Your task to perform on an android device: turn off improve location accuracy Image 0: 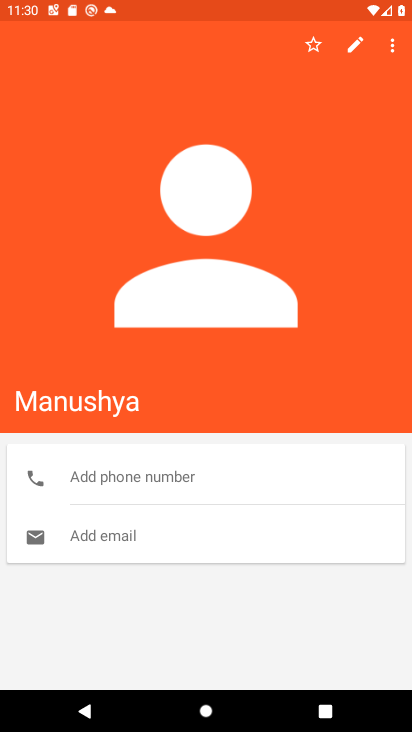
Step 0: press home button
Your task to perform on an android device: turn off improve location accuracy Image 1: 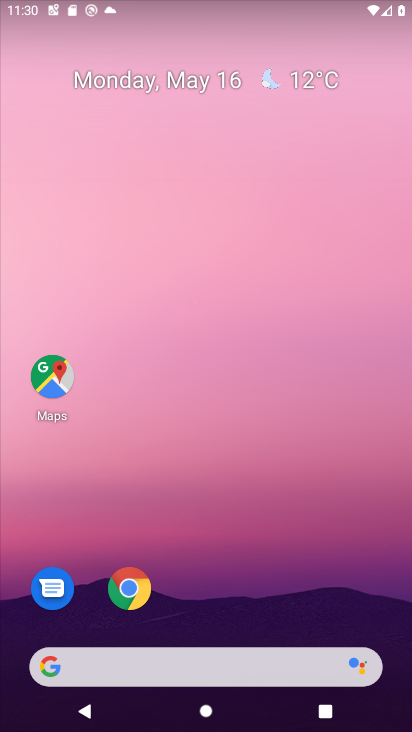
Step 1: drag from (206, 624) to (234, 1)
Your task to perform on an android device: turn off improve location accuracy Image 2: 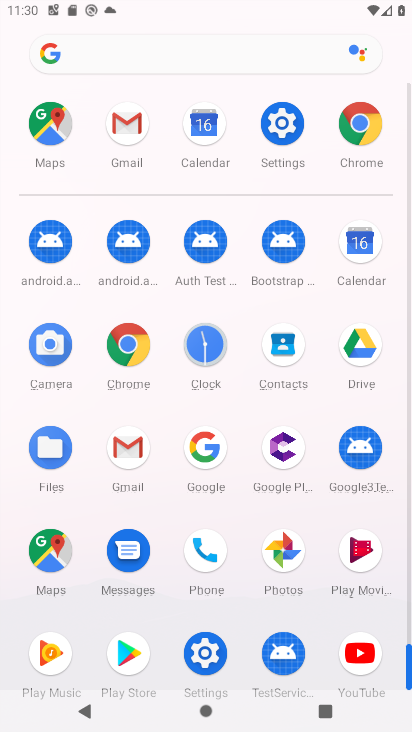
Step 2: click (280, 118)
Your task to perform on an android device: turn off improve location accuracy Image 3: 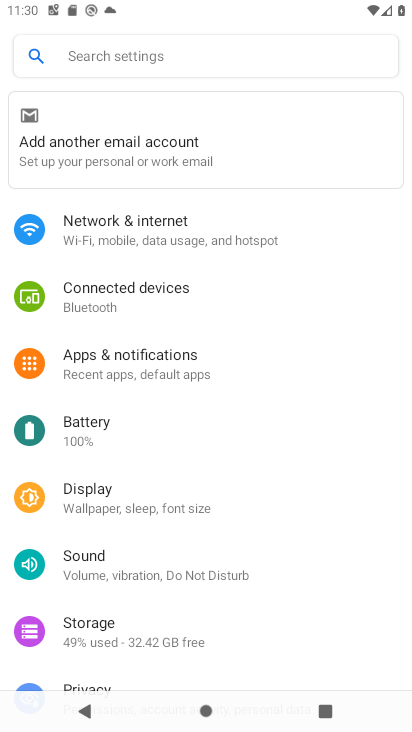
Step 3: drag from (157, 609) to (168, 113)
Your task to perform on an android device: turn off improve location accuracy Image 4: 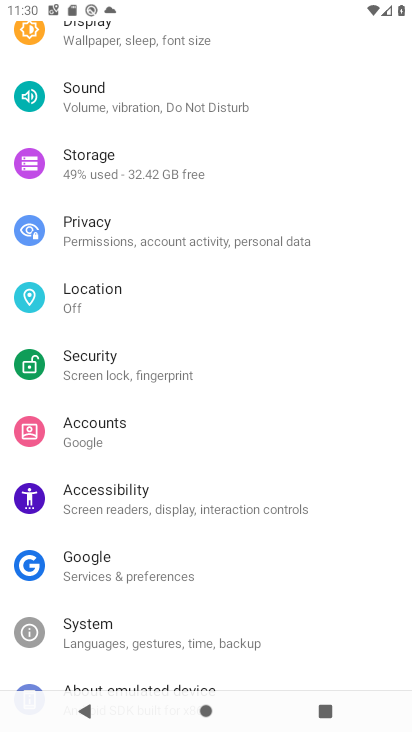
Step 4: click (97, 302)
Your task to perform on an android device: turn off improve location accuracy Image 5: 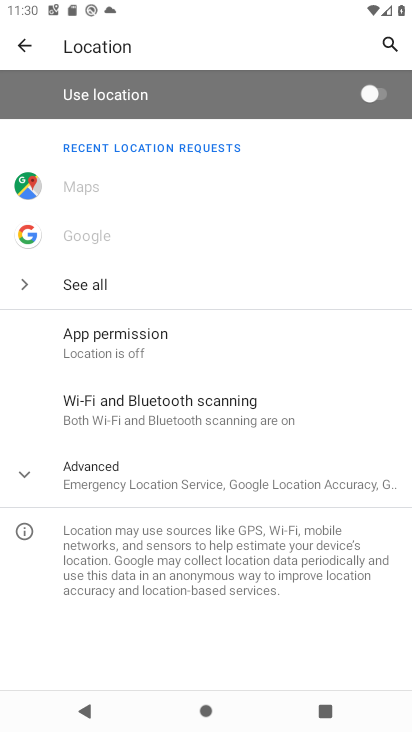
Step 5: click (22, 467)
Your task to perform on an android device: turn off improve location accuracy Image 6: 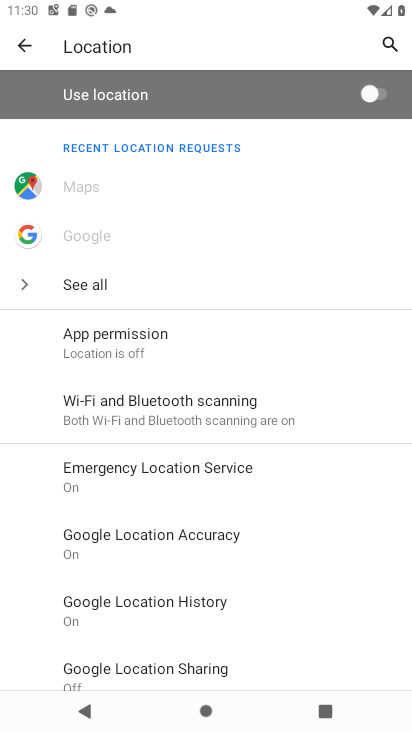
Step 6: click (126, 547)
Your task to perform on an android device: turn off improve location accuracy Image 7: 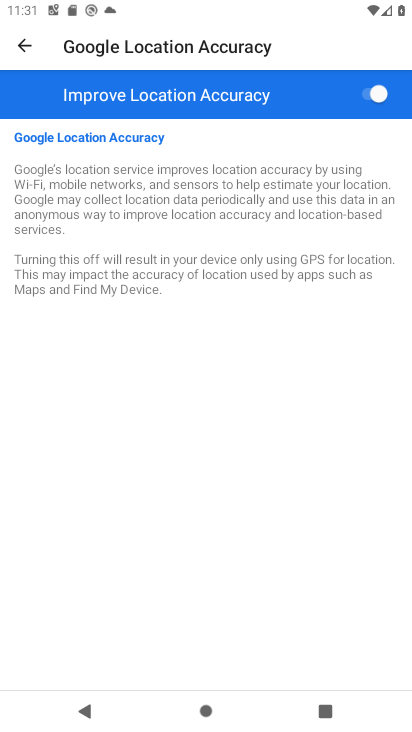
Step 7: click (371, 89)
Your task to perform on an android device: turn off improve location accuracy Image 8: 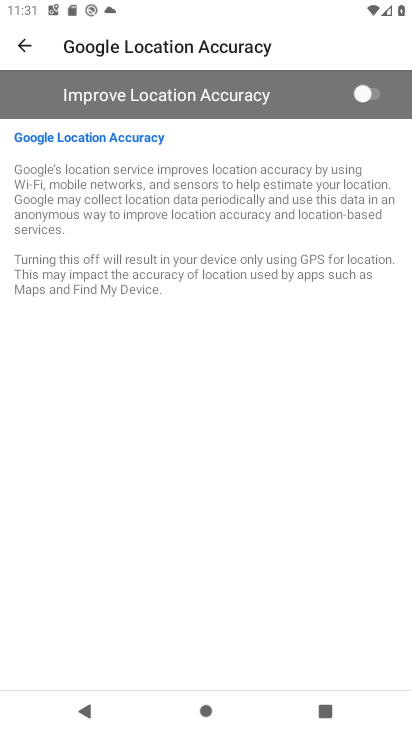
Step 8: task complete